Your task to perform on an android device: toggle priority inbox in the gmail app Image 0: 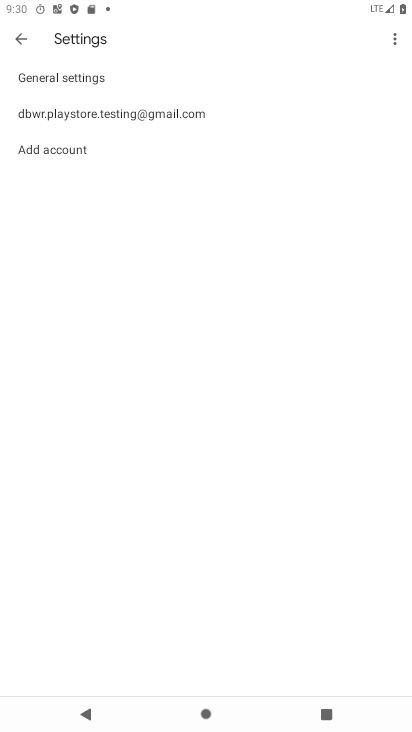
Step 0: press home button
Your task to perform on an android device: toggle priority inbox in the gmail app Image 1: 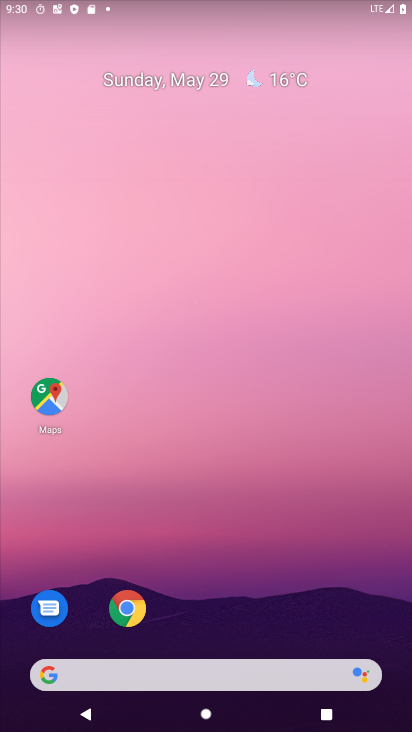
Step 1: drag from (190, 634) to (287, 97)
Your task to perform on an android device: toggle priority inbox in the gmail app Image 2: 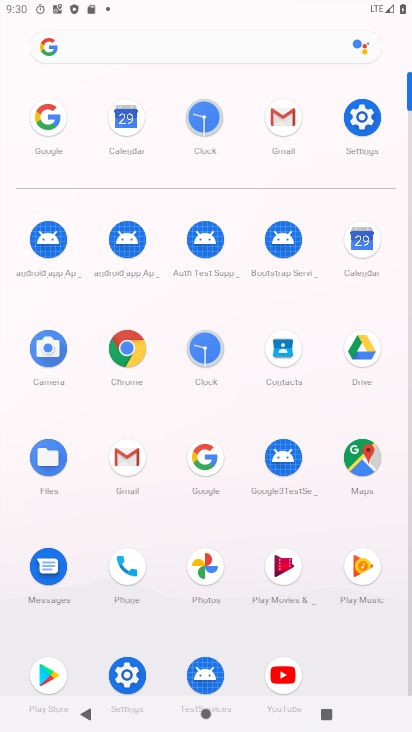
Step 2: click (281, 132)
Your task to perform on an android device: toggle priority inbox in the gmail app Image 3: 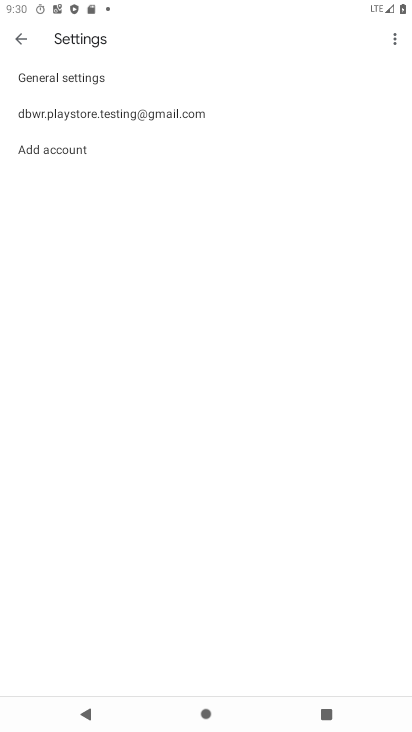
Step 3: click (148, 114)
Your task to perform on an android device: toggle priority inbox in the gmail app Image 4: 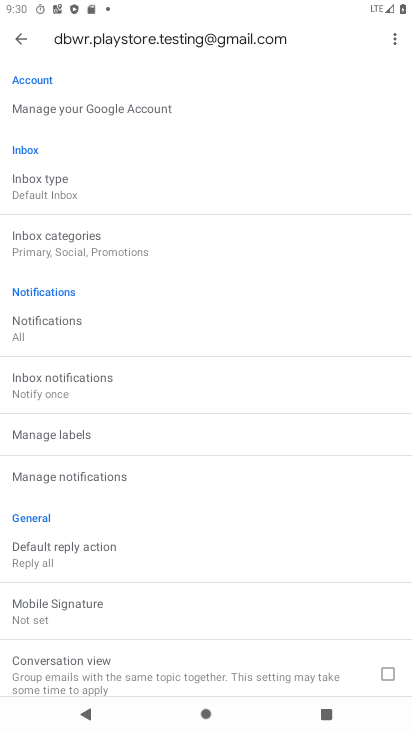
Step 4: click (46, 189)
Your task to perform on an android device: toggle priority inbox in the gmail app Image 5: 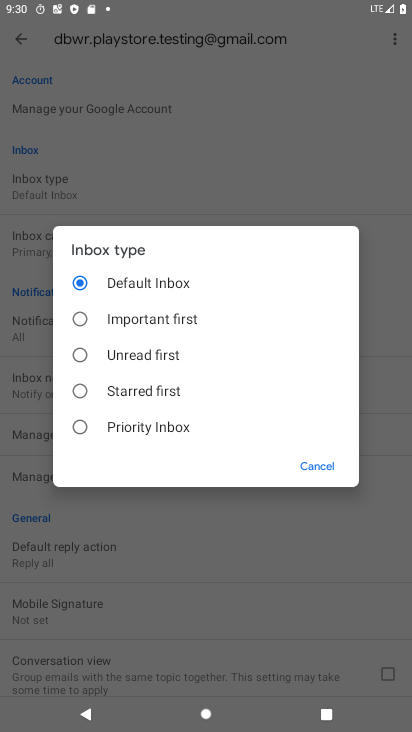
Step 5: click (80, 429)
Your task to perform on an android device: toggle priority inbox in the gmail app Image 6: 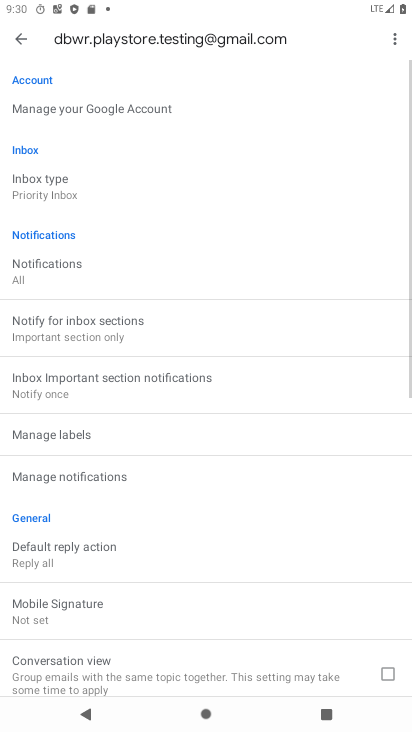
Step 6: task complete